Your task to perform on an android device: Show me popular games on the Play Store Image 0: 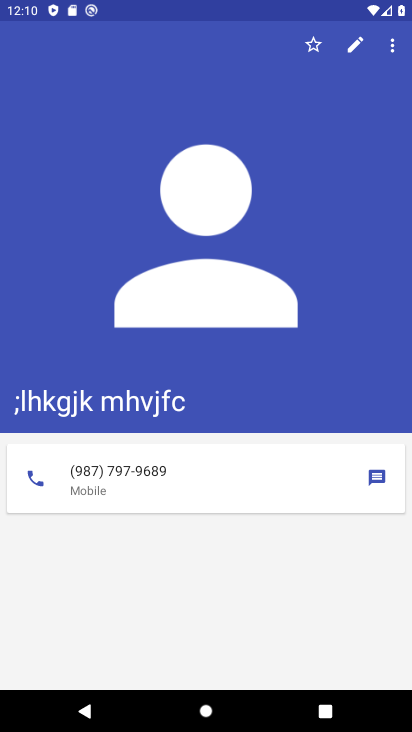
Step 0: press home button
Your task to perform on an android device: Show me popular games on the Play Store Image 1: 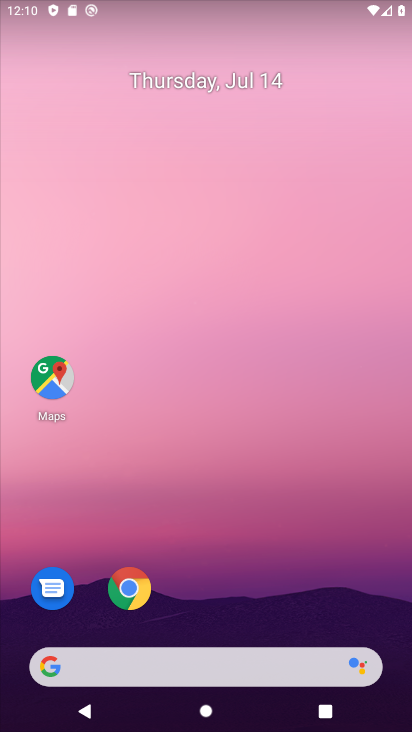
Step 1: drag from (243, 600) to (245, 102)
Your task to perform on an android device: Show me popular games on the Play Store Image 2: 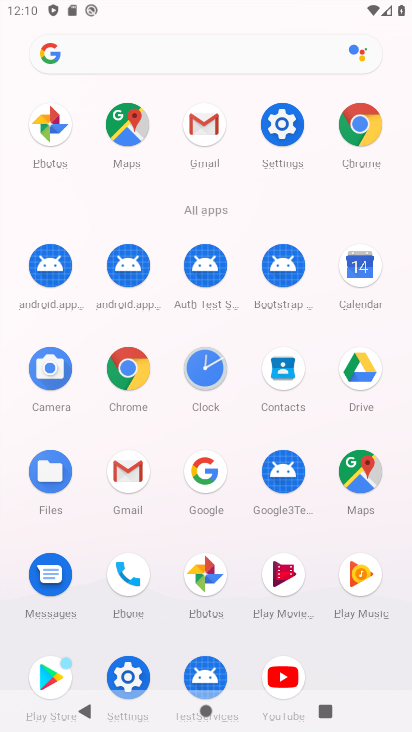
Step 2: click (57, 667)
Your task to perform on an android device: Show me popular games on the Play Store Image 3: 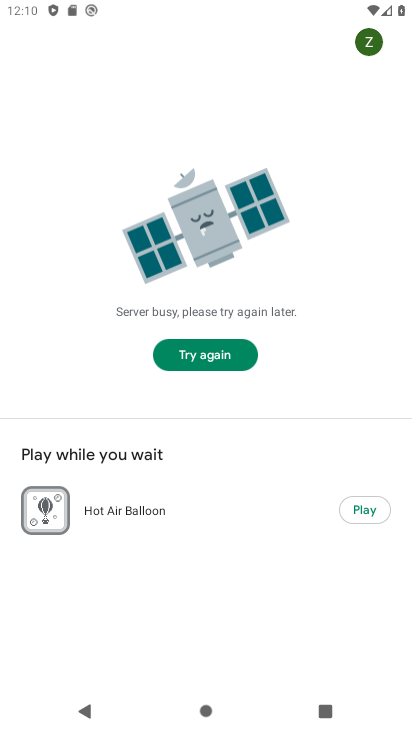
Step 3: click (212, 349)
Your task to perform on an android device: Show me popular games on the Play Store Image 4: 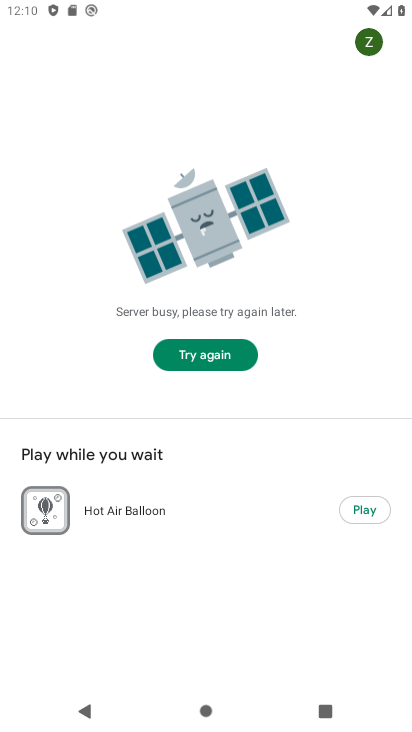
Step 4: click (212, 349)
Your task to perform on an android device: Show me popular games on the Play Store Image 5: 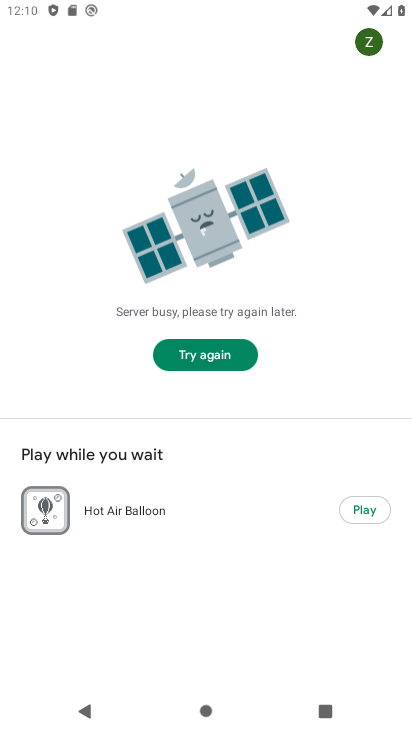
Step 5: task complete